Your task to perform on an android device: toggle notification dots Image 0: 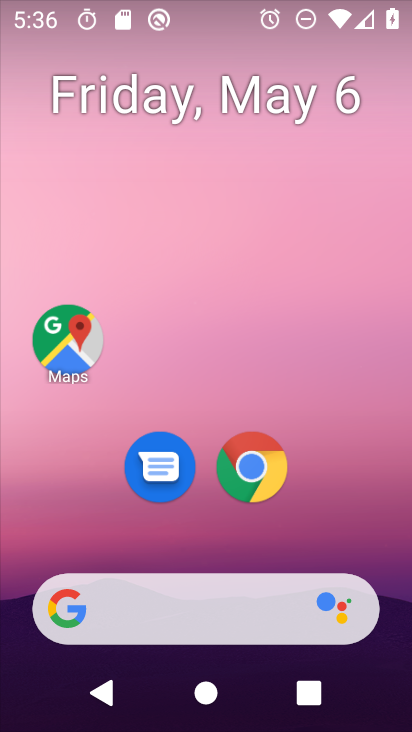
Step 0: drag from (343, 491) to (350, 215)
Your task to perform on an android device: toggle notification dots Image 1: 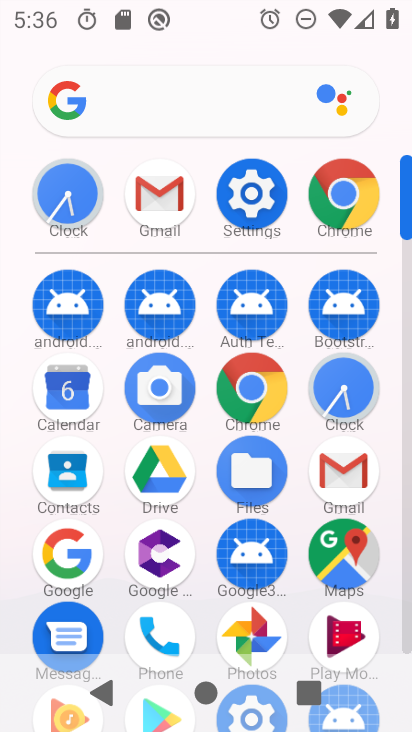
Step 1: click (247, 192)
Your task to perform on an android device: toggle notification dots Image 2: 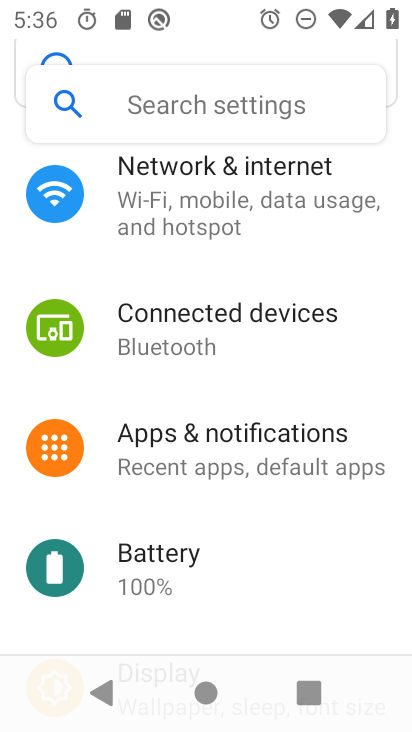
Step 2: click (233, 467)
Your task to perform on an android device: toggle notification dots Image 3: 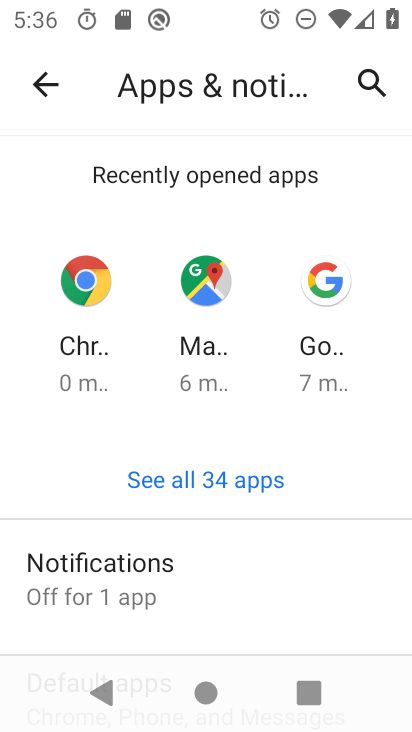
Step 3: drag from (222, 542) to (235, 311)
Your task to perform on an android device: toggle notification dots Image 4: 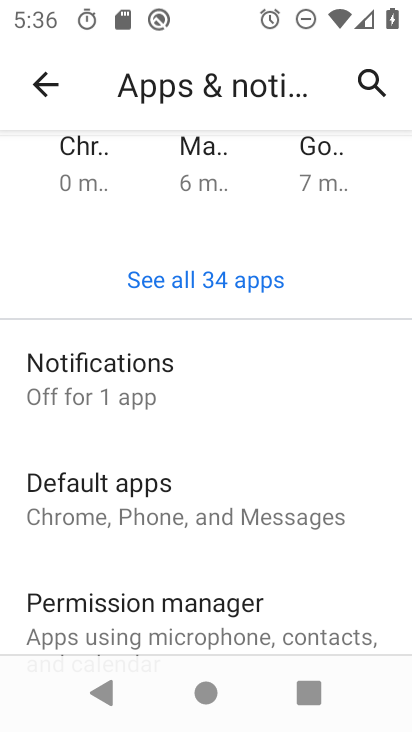
Step 4: drag from (252, 533) to (241, 363)
Your task to perform on an android device: toggle notification dots Image 5: 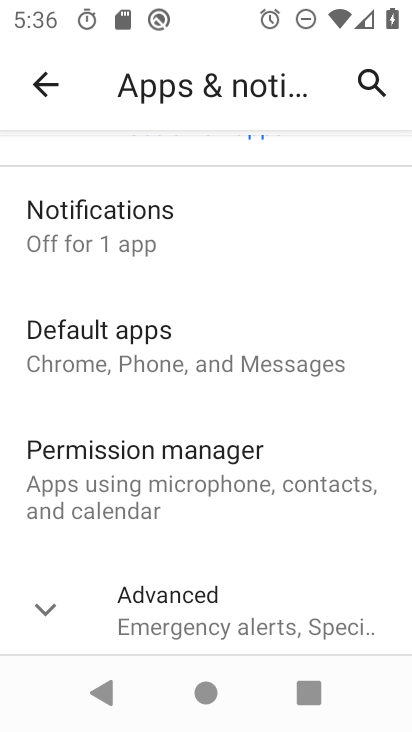
Step 5: click (152, 224)
Your task to perform on an android device: toggle notification dots Image 6: 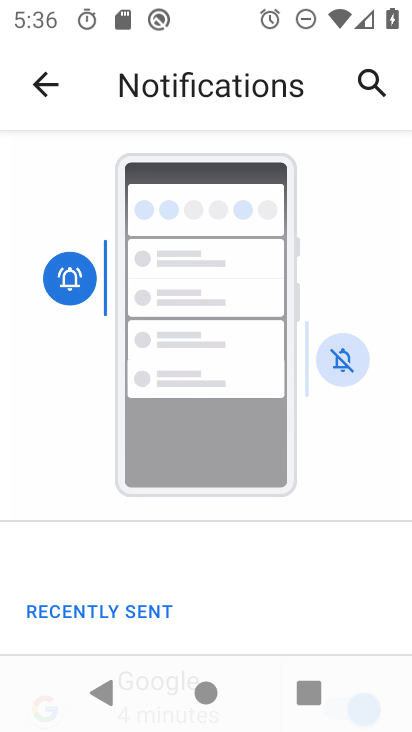
Step 6: drag from (303, 650) to (182, 304)
Your task to perform on an android device: toggle notification dots Image 7: 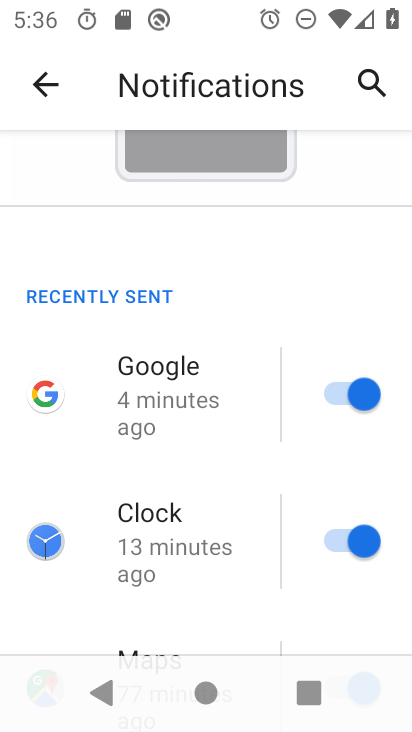
Step 7: drag from (228, 537) to (140, 253)
Your task to perform on an android device: toggle notification dots Image 8: 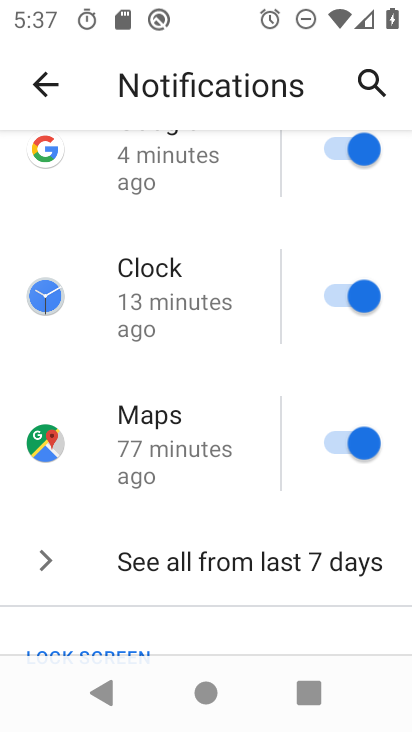
Step 8: drag from (237, 490) to (165, 276)
Your task to perform on an android device: toggle notification dots Image 9: 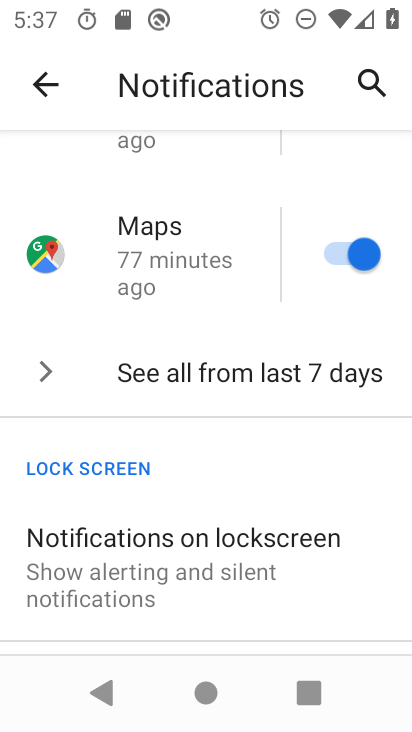
Step 9: drag from (219, 587) to (171, 326)
Your task to perform on an android device: toggle notification dots Image 10: 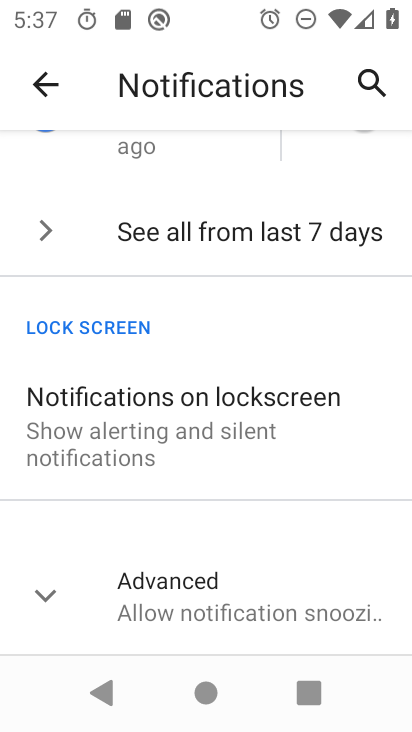
Step 10: click (214, 585)
Your task to perform on an android device: toggle notification dots Image 11: 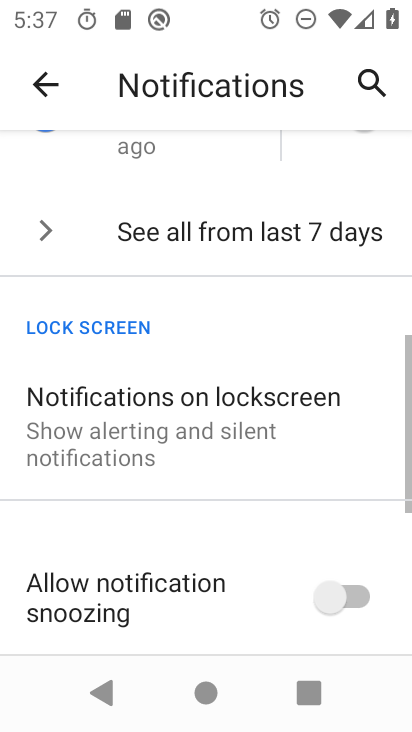
Step 11: drag from (232, 629) to (151, 305)
Your task to perform on an android device: toggle notification dots Image 12: 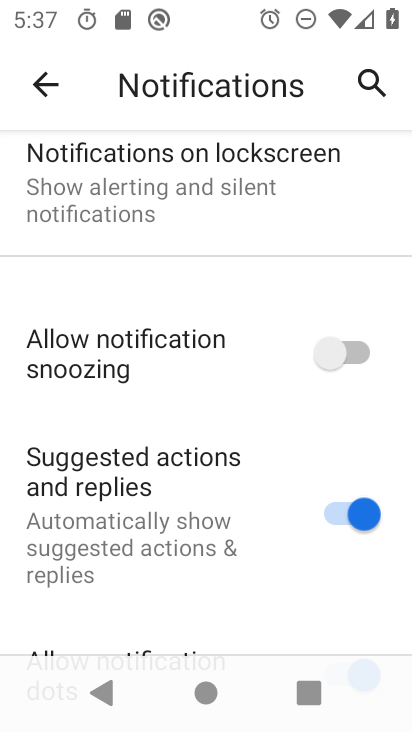
Step 12: drag from (232, 592) to (180, 368)
Your task to perform on an android device: toggle notification dots Image 13: 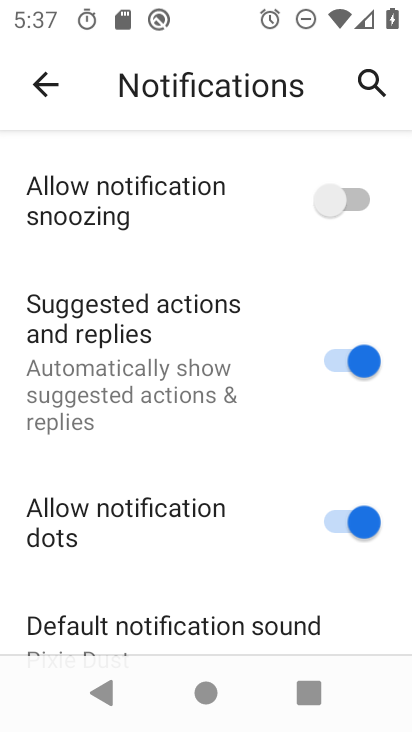
Step 13: click (328, 524)
Your task to perform on an android device: toggle notification dots Image 14: 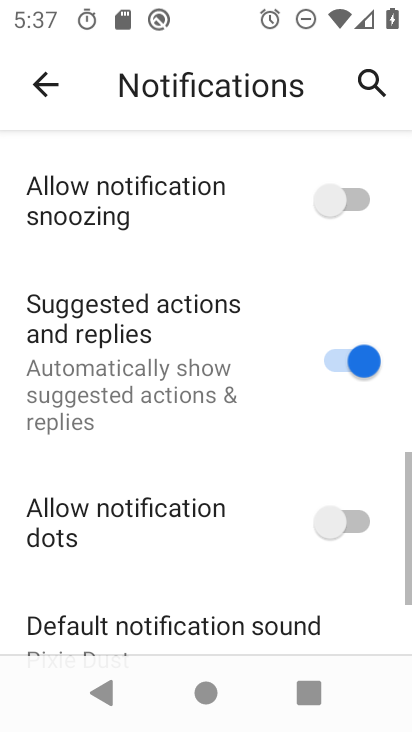
Step 14: task complete